Your task to perform on an android device: Open accessibility settings Image 0: 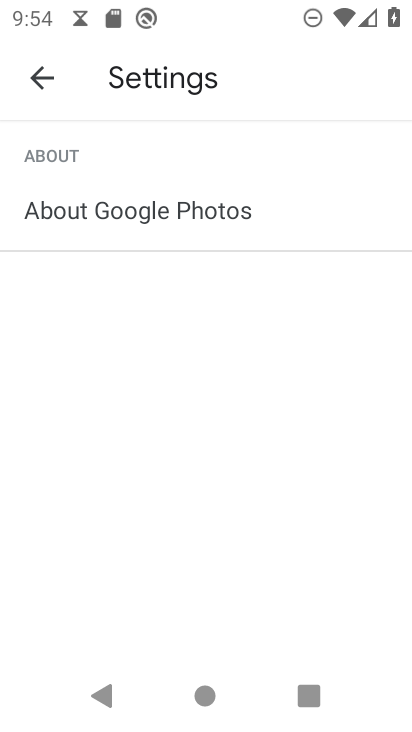
Step 0: press home button
Your task to perform on an android device: Open accessibility settings Image 1: 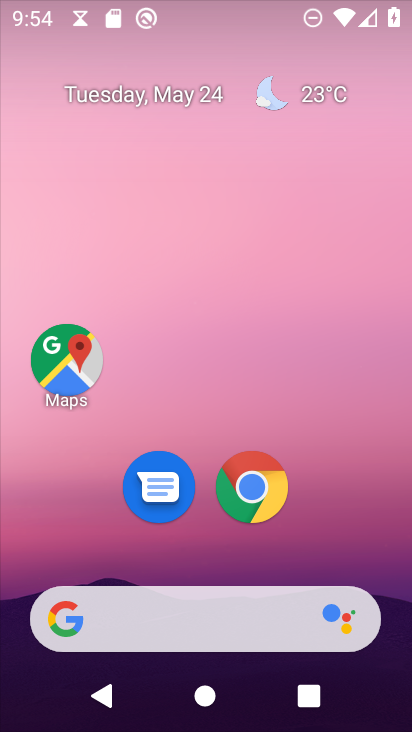
Step 1: drag from (9, 640) to (240, 148)
Your task to perform on an android device: Open accessibility settings Image 2: 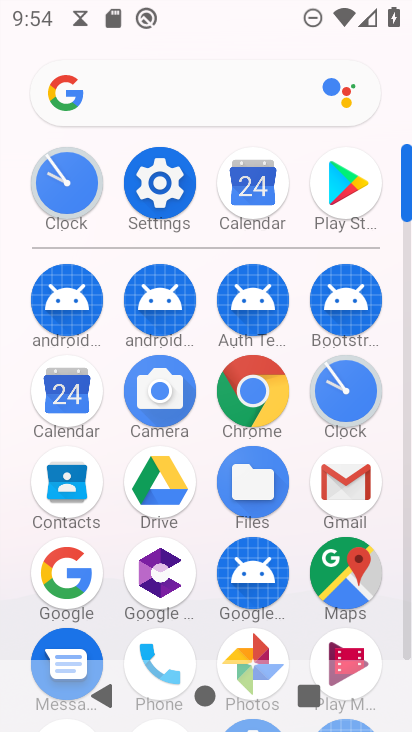
Step 2: click (181, 174)
Your task to perform on an android device: Open accessibility settings Image 3: 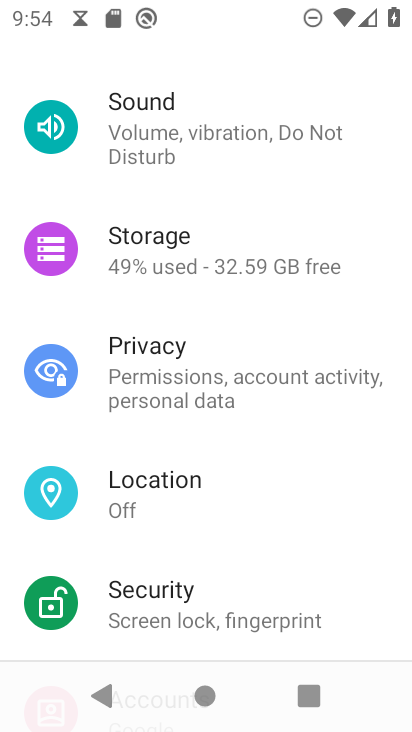
Step 3: drag from (25, 497) to (183, 217)
Your task to perform on an android device: Open accessibility settings Image 4: 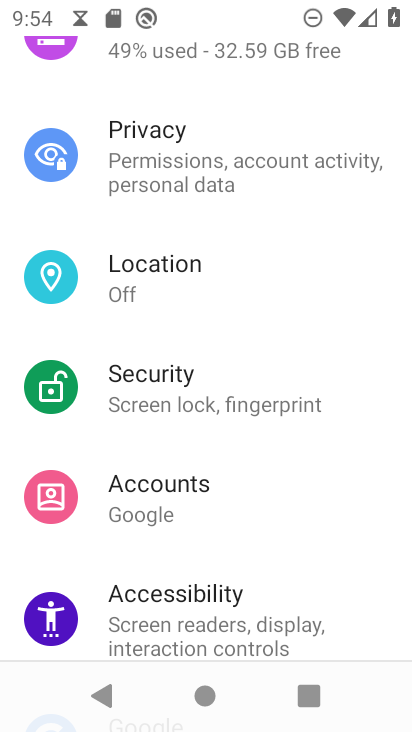
Step 4: click (136, 602)
Your task to perform on an android device: Open accessibility settings Image 5: 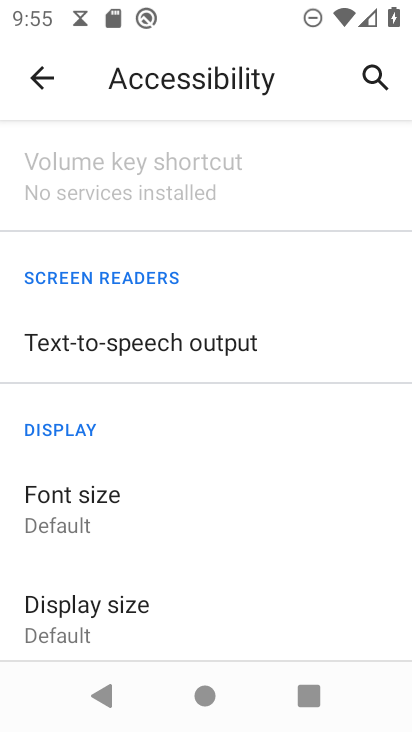
Step 5: task complete